Your task to perform on an android device: Go to Maps Image 0: 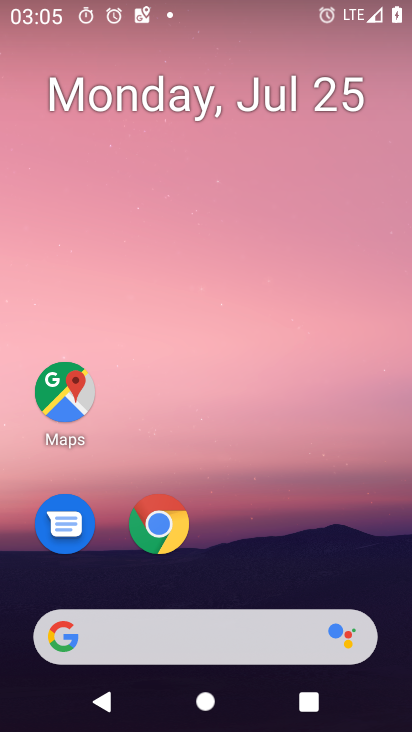
Step 0: press home button
Your task to perform on an android device: Go to Maps Image 1: 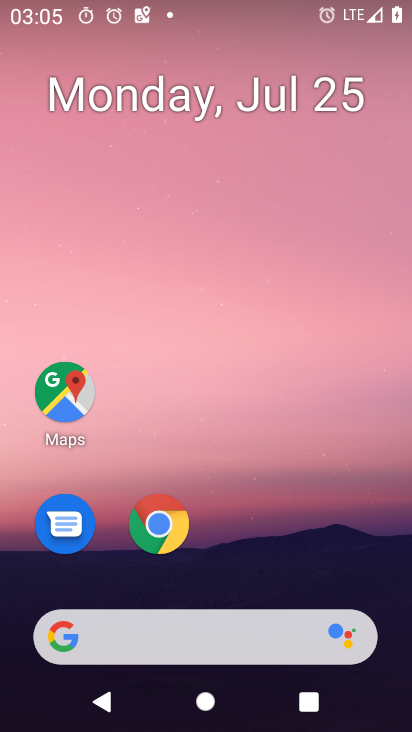
Step 1: drag from (276, 569) to (264, 85)
Your task to perform on an android device: Go to Maps Image 2: 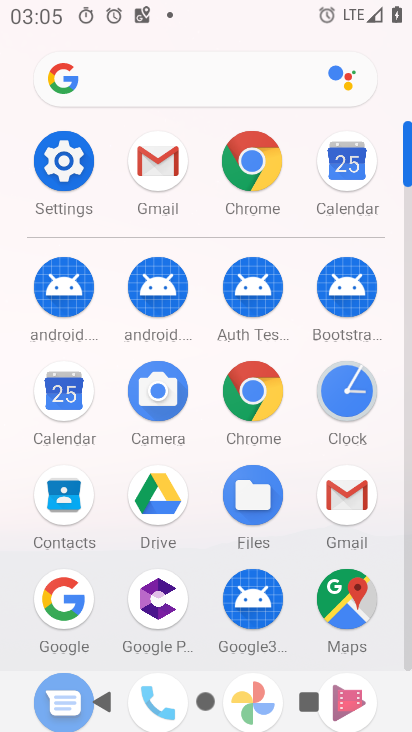
Step 2: click (346, 601)
Your task to perform on an android device: Go to Maps Image 3: 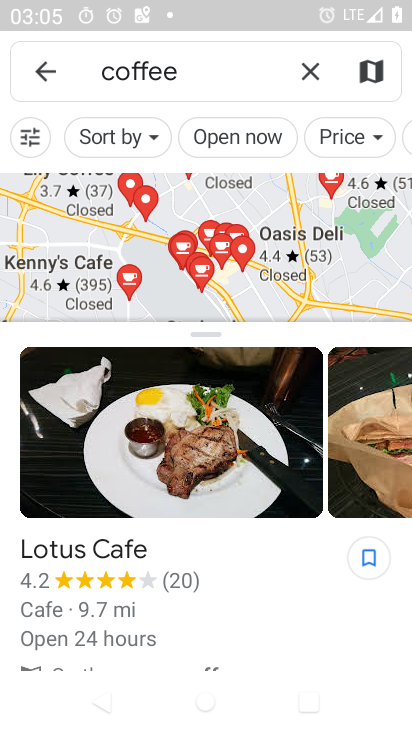
Step 3: click (46, 67)
Your task to perform on an android device: Go to Maps Image 4: 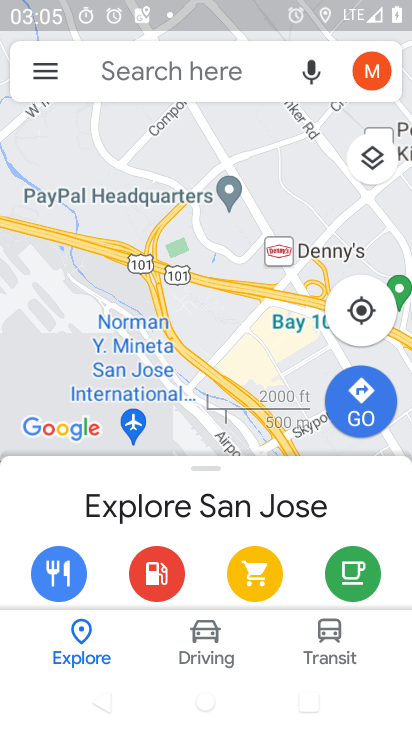
Step 4: task complete